Your task to perform on an android device: search for starred emails in the gmail app Image 0: 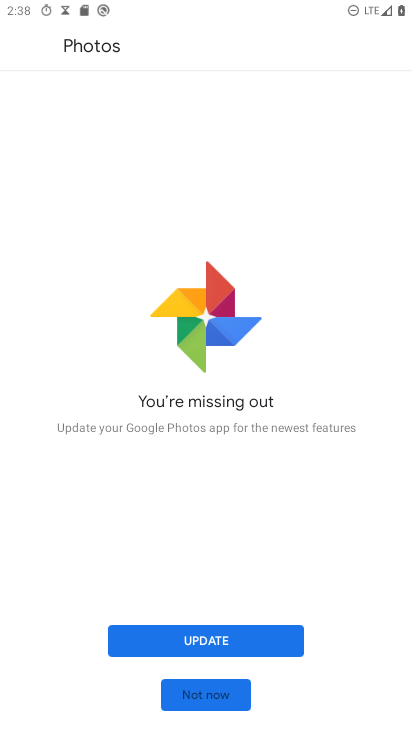
Step 0: press home button
Your task to perform on an android device: search for starred emails in the gmail app Image 1: 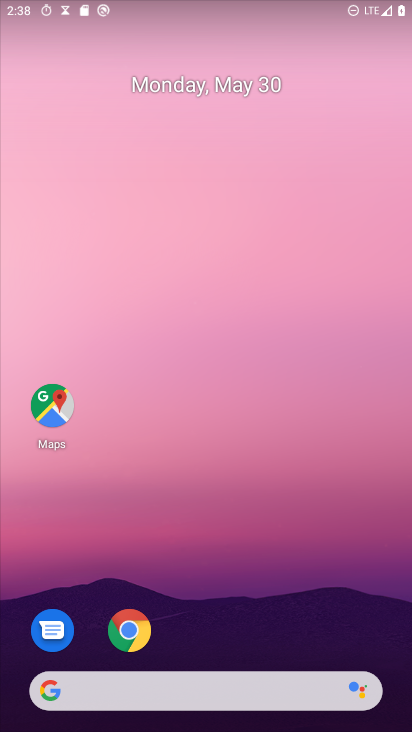
Step 1: drag from (239, 707) to (231, 152)
Your task to perform on an android device: search for starred emails in the gmail app Image 2: 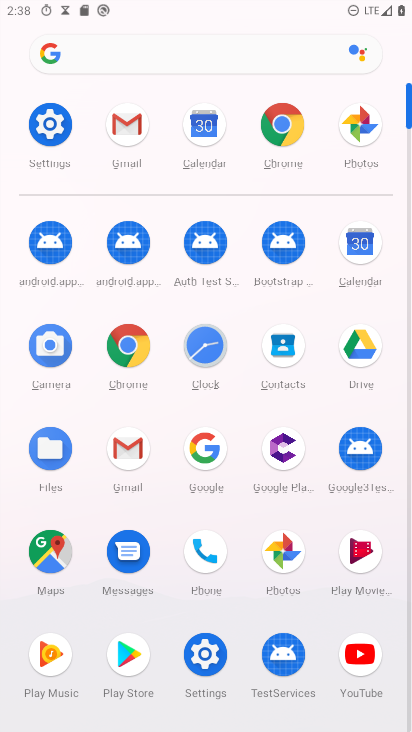
Step 2: click (131, 132)
Your task to perform on an android device: search for starred emails in the gmail app Image 3: 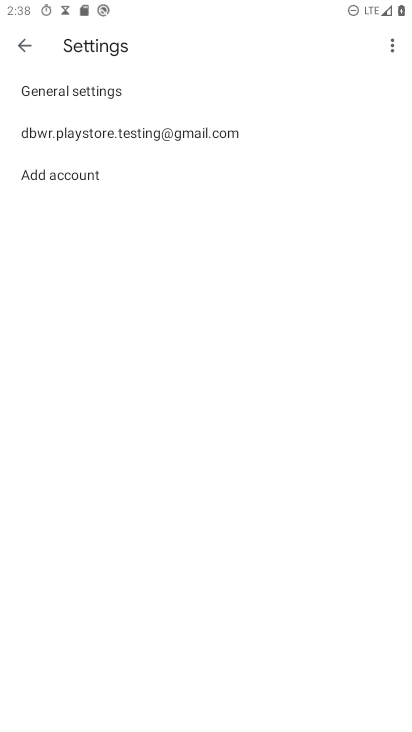
Step 3: click (22, 45)
Your task to perform on an android device: search for starred emails in the gmail app Image 4: 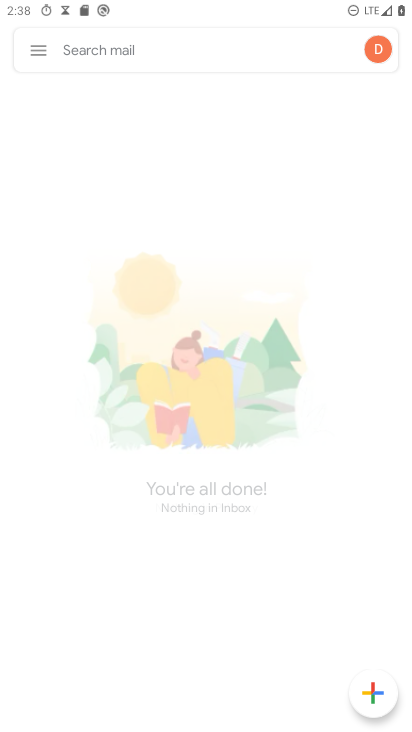
Step 4: click (22, 45)
Your task to perform on an android device: search for starred emails in the gmail app Image 5: 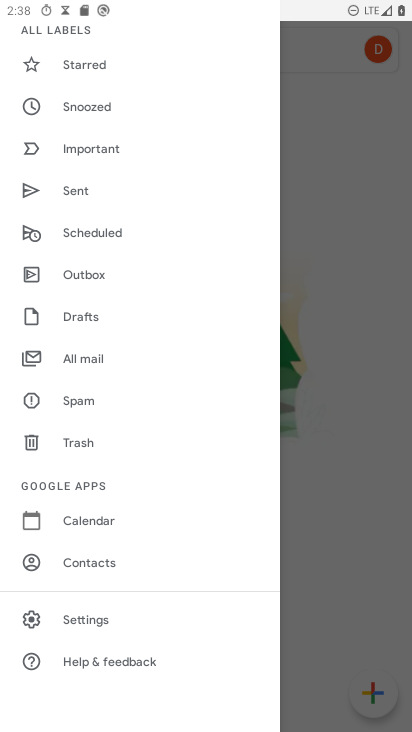
Step 5: click (119, 68)
Your task to perform on an android device: search for starred emails in the gmail app Image 6: 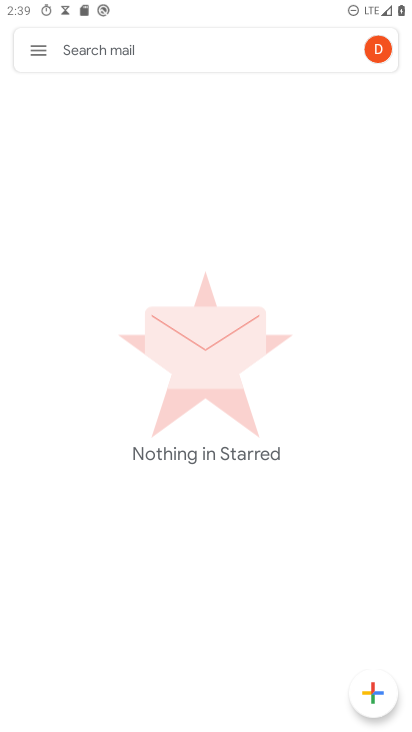
Step 6: click (26, 44)
Your task to perform on an android device: search for starred emails in the gmail app Image 7: 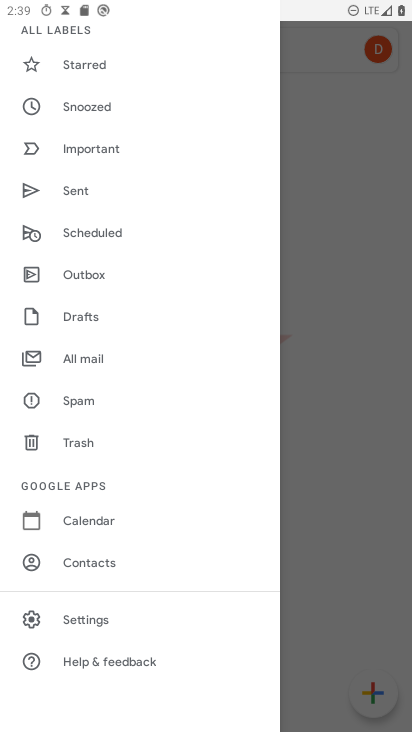
Step 7: click (94, 67)
Your task to perform on an android device: search for starred emails in the gmail app Image 8: 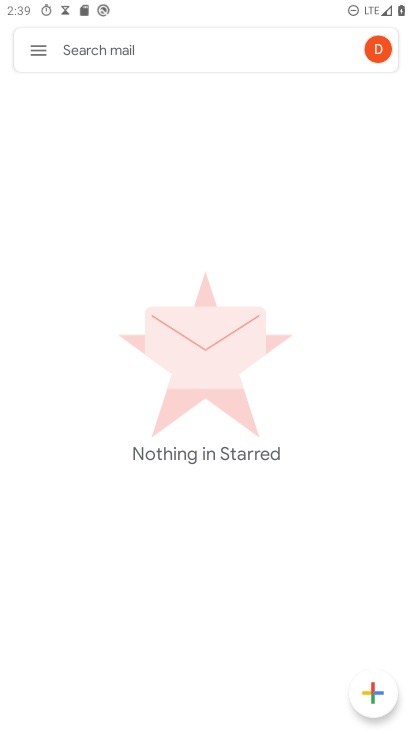
Step 8: task complete